Your task to perform on an android device: open app "Airtel Thanks" Image 0: 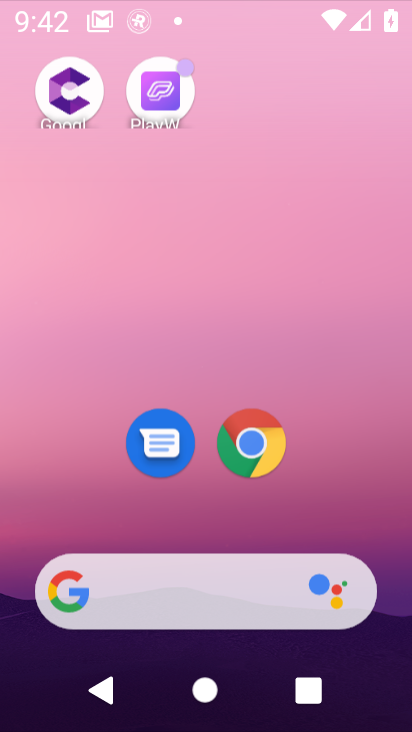
Step 0: press home button
Your task to perform on an android device: open app "Airtel Thanks" Image 1: 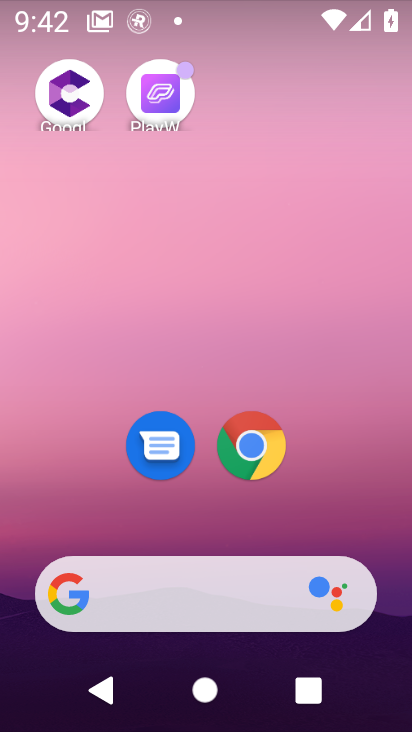
Step 1: drag from (251, 482) to (293, 148)
Your task to perform on an android device: open app "Airtel Thanks" Image 2: 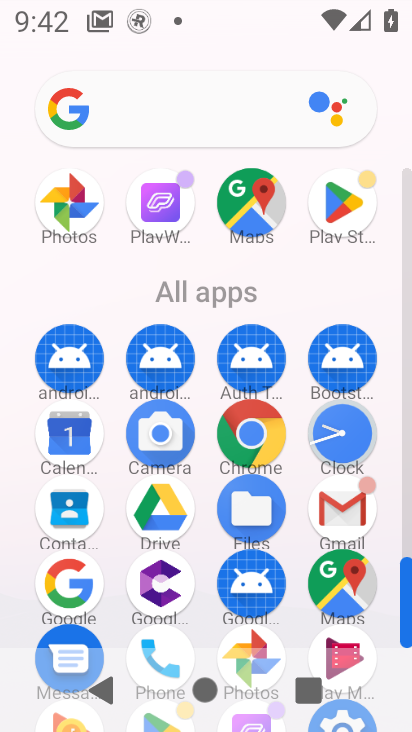
Step 2: click (352, 201)
Your task to perform on an android device: open app "Airtel Thanks" Image 3: 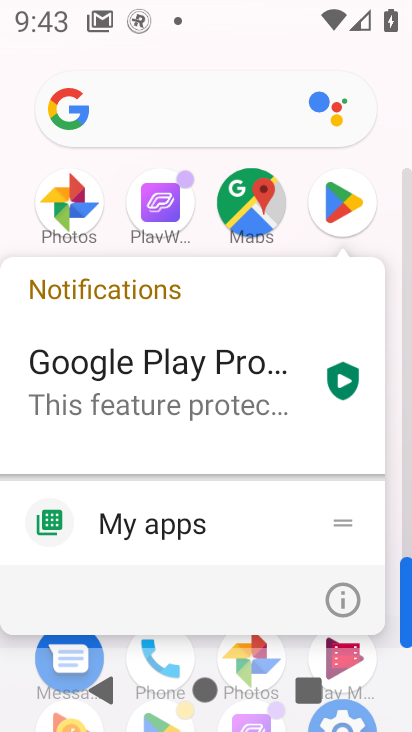
Step 3: click (361, 210)
Your task to perform on an android device: open app "Airtel Thanks" Image 4: 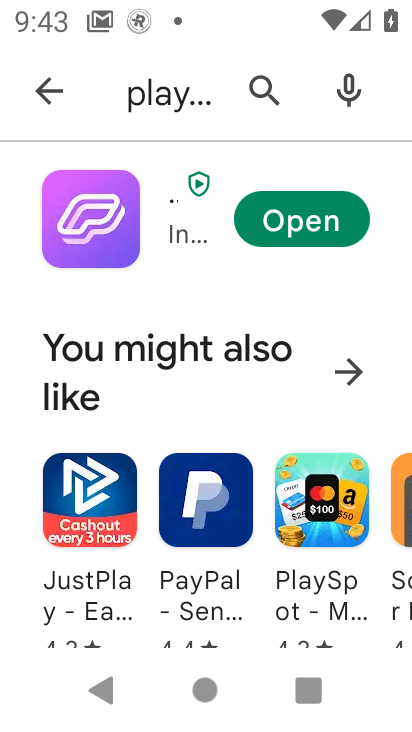
Step 4: click (52, 93)
Your task to perform on an android device: open app "Airtel Thanks" Image 5: 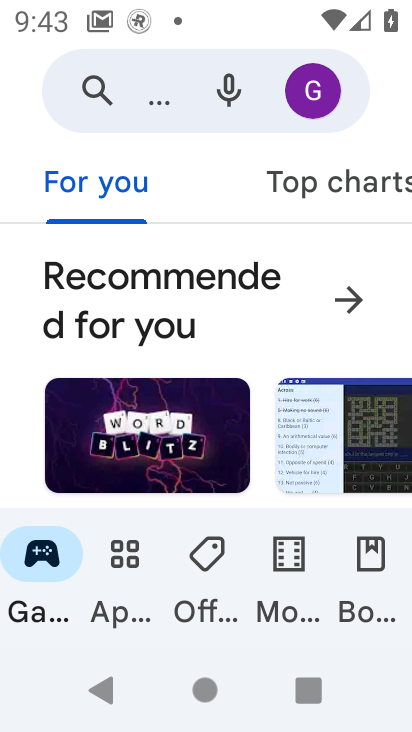
Step 5: click (93, 84)
Your task to perform on an android device: open app "Airtel Thanks" Image 6: 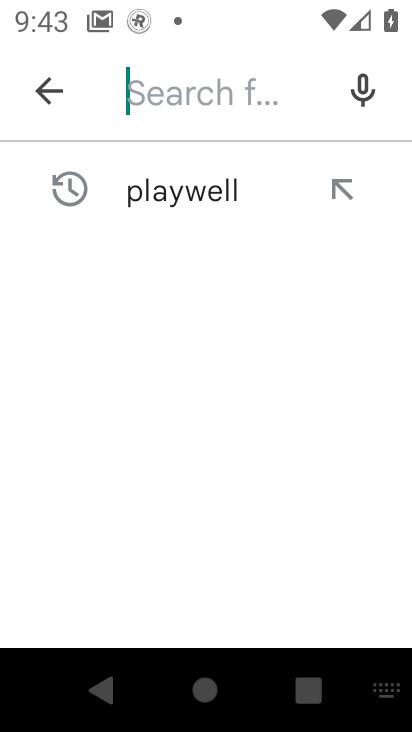
Step 6: type "Airtel Thanks"
Your task to perform on an android device: open app "Airtel Thanks" Image 7: 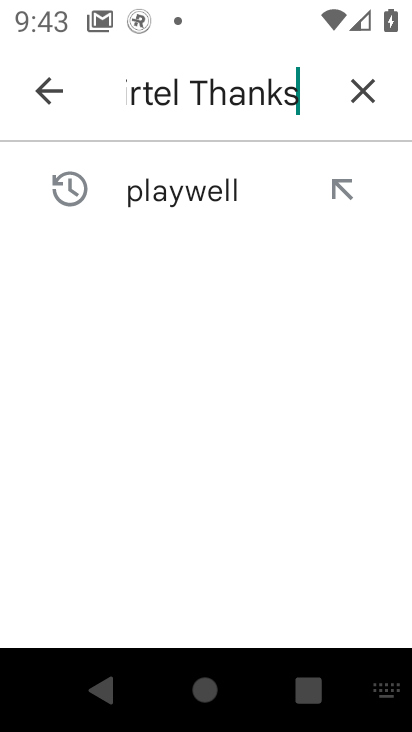
Step 7: type ""
Your task to perform on an android device: open app "Airtel Thanks" Image 8: 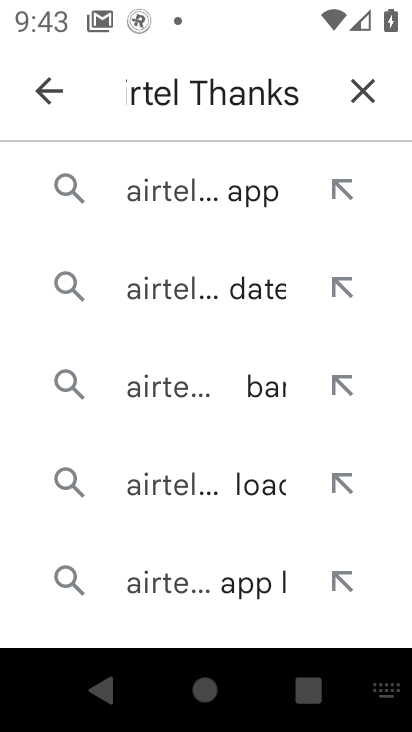
Step 8: click (176, 191)
Your task to perform on an android device: open app "Airtel Thanks" Image 9: 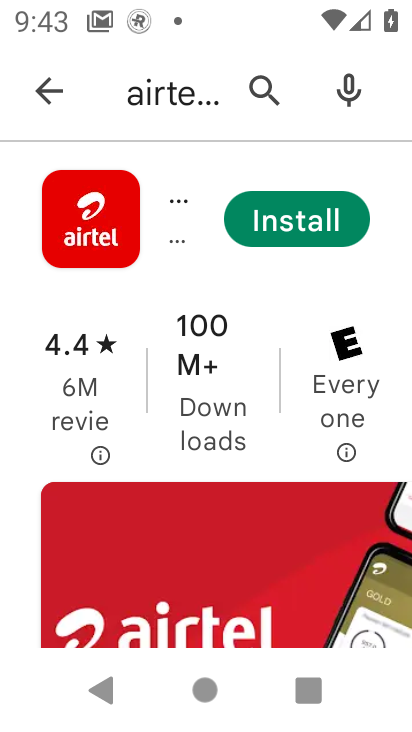
Step 9: task complete